Your task to perform on an android device: turn off notifications settings in the gmail app Image 0: 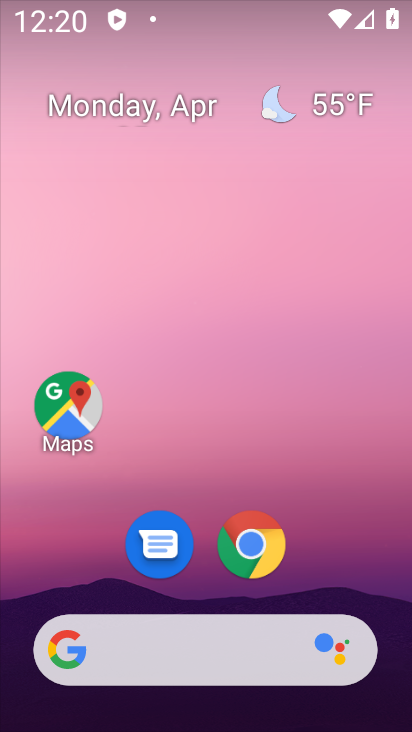
Step 0: drag from (340, 483) to (142, 49)
Your task to perform on an android device: turn off notifications settings in the gmail app Image 1: 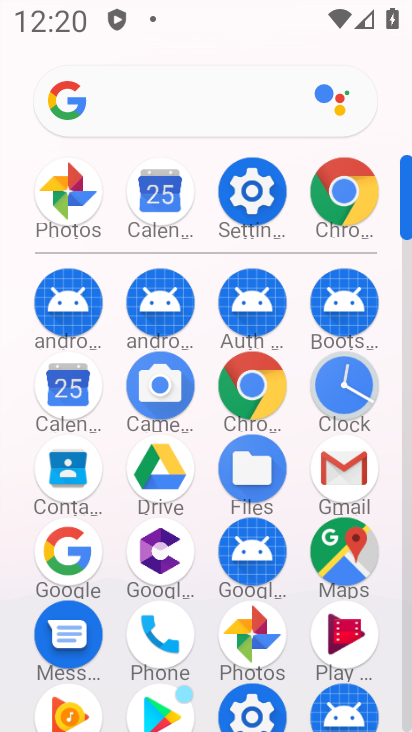
Step 1: click (338, 473)
Your task to perform on an android device: turn off notifications settings in the gmail app Image 2: 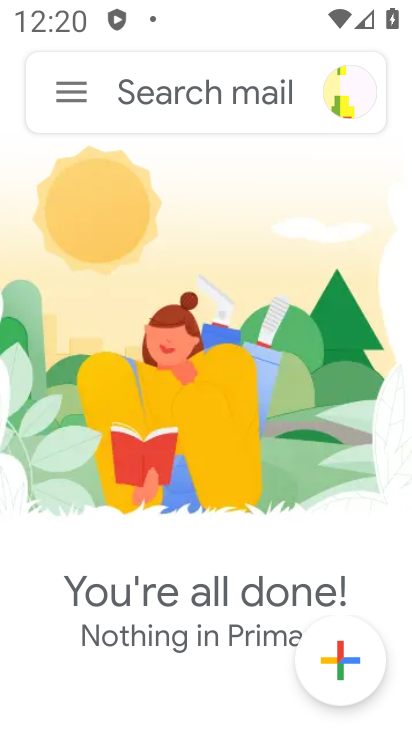
Step 2: click (75, 92)
Your task to perform on an android device: turn off notifications settings in the gmail app Image 3: 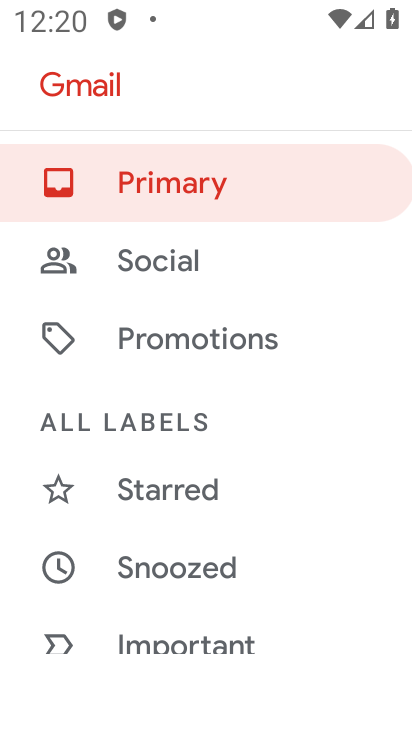
Step 3: drag from (199, 631) to (170, 176)
Your task to perform on an android device: turn off notifications settings in the gmail app Image 4: 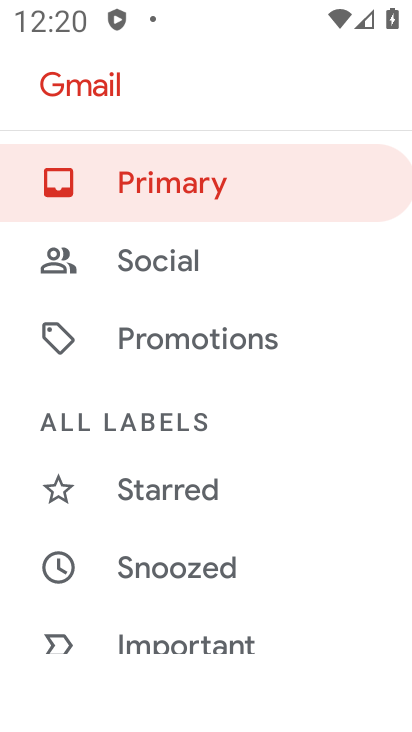
Step 4: drag from (292, 609) to (271, 106)
Your task to perform on an android device: turn off notifications settings in the gmail app Image 5: 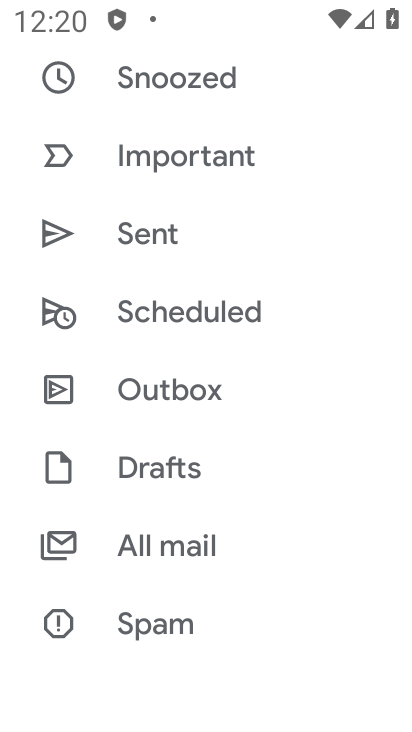
Step 5: drag from (259, 618) to (224, 126)
Your task to perform on an android device: turn off notifications settings in the gmail app Image 6: 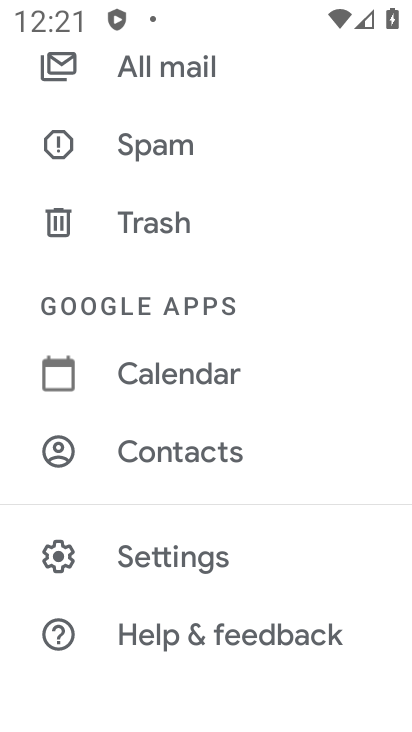
Step 6: click (158, 555)
Your task to perform on an android device: turn off notifications settings in the gmail app Image 7: 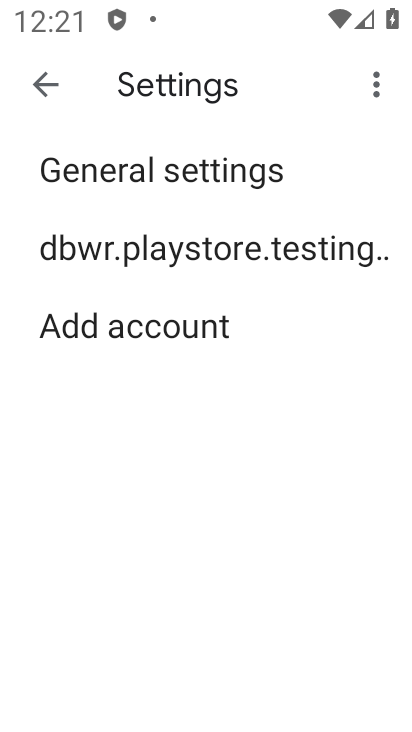
Step 7: click (180, 250)
Your task to perform on an android device: turn off notifications settings in the gmail app Image 8: 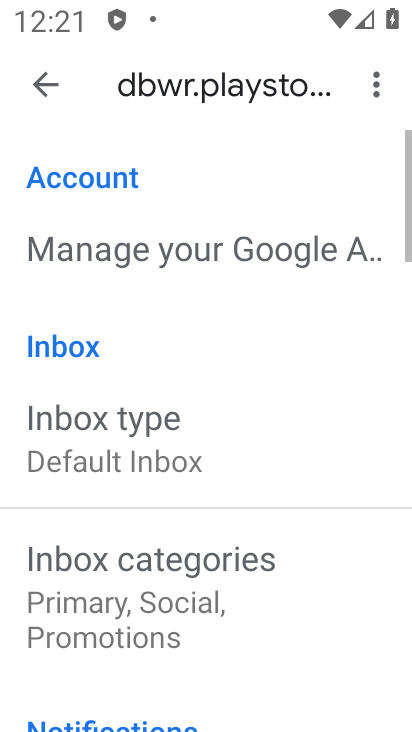
Step 8: drag from (215, 648) to (211, 171)
Your task to perform on an android device: turn off notifications settings in the gmail app Image 9: 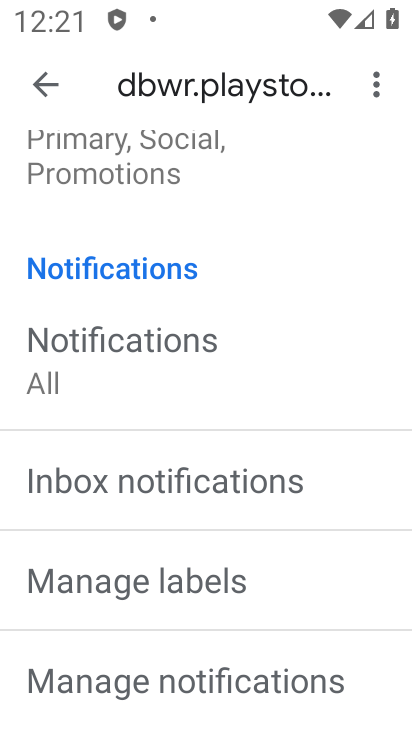
Step 9: drag from (185, 658) to (186, 342)
Your task to perform on an android device: turn off notifications settings in the gmail app Image 10: 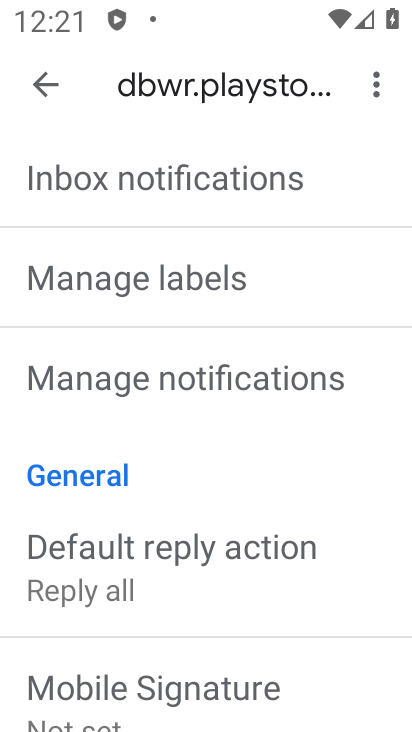
Step 10: click (164, 374)
Your task to perform on an android device: turn off notifications settings in the gmail app Image 11: 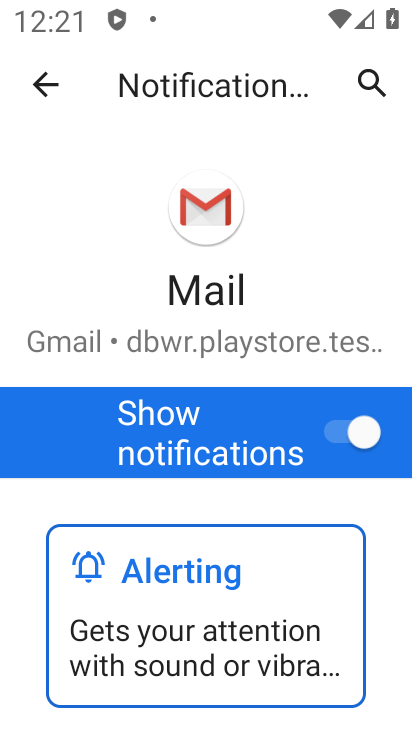
Step 11: click (366, 434)
Your task to perform on an android device: turn off notifications settings in the gmail app Image 12: 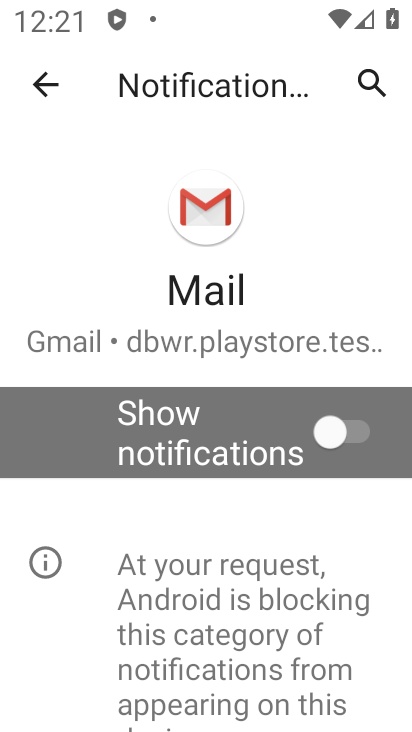
Step 12: task complete